Your task to perform on an android device: Open the phone app and click the voicemail tab. Image 0: 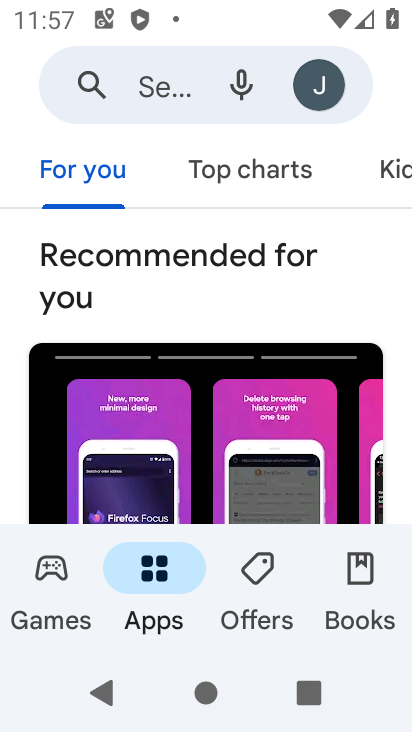
Step 0: press home button
Your task to perform on an android device: Open the phone app and click the voicemail tab. Image 1: 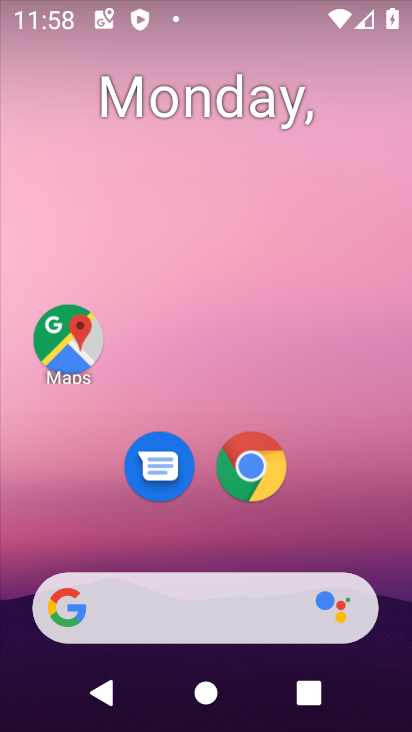
Step 1: drag from (173, 599) to (196, 150)
Your task to perform on an android device: Open the phone app and click the voicemail tab. Image 2: 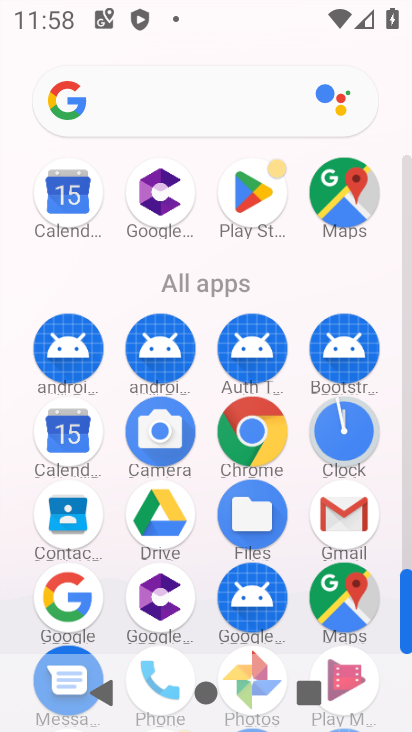
Step 2: drag from (192, 630) to (267, 200)
Your task to perform on an android device: Open the phone app and click the voicemail tab. Image 3: 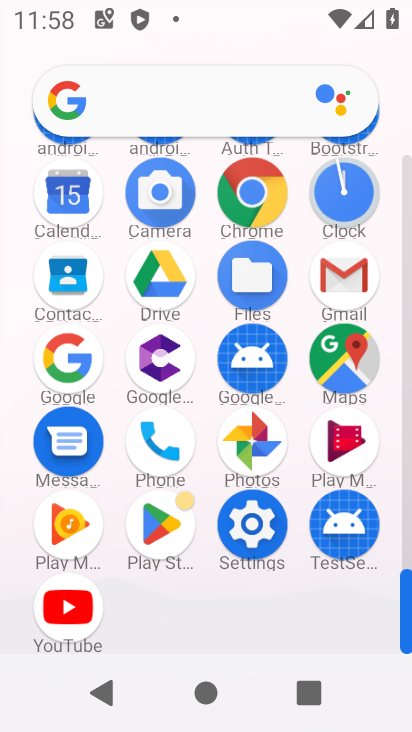
Step 3: click (334, 443)
Your task to perform on an android device: Open the phone app and click the voicemail tab. Image 4: 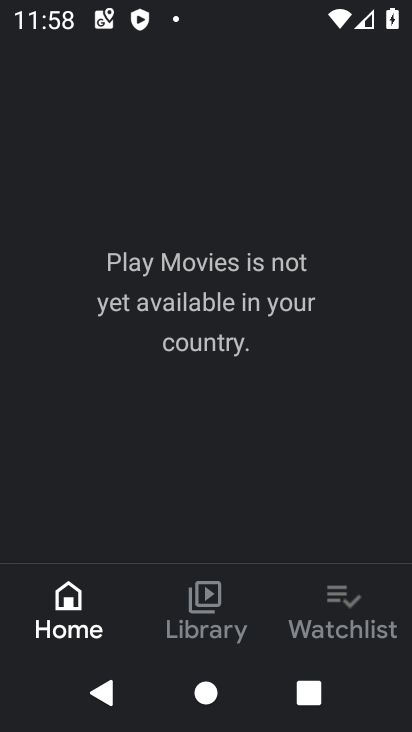
Step 4: click (350, 604)
Your task to perform on an android device: Open the phone app and click the voicemail tab. Image 5: 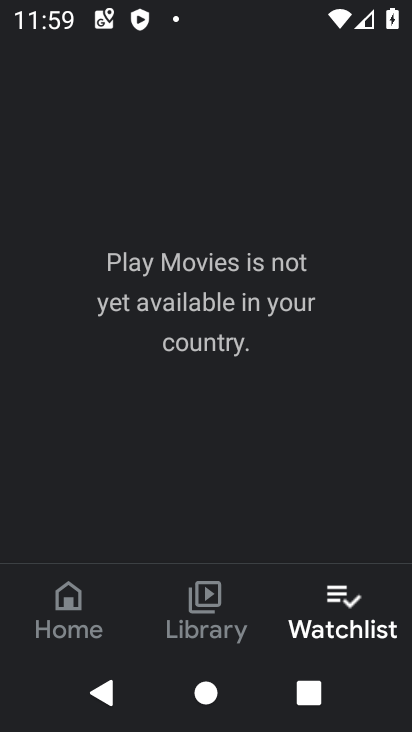
Step 5: task complete